Your task to perform on an android device: star an email in the gmail app Image 0: 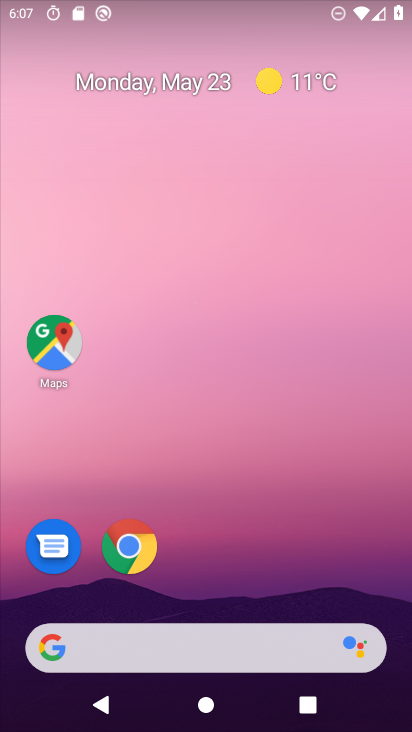
Step 0: drag from (259, 592) to (253, 157)
Your task to perform on an android device: star an email in the gmail app Image 1: 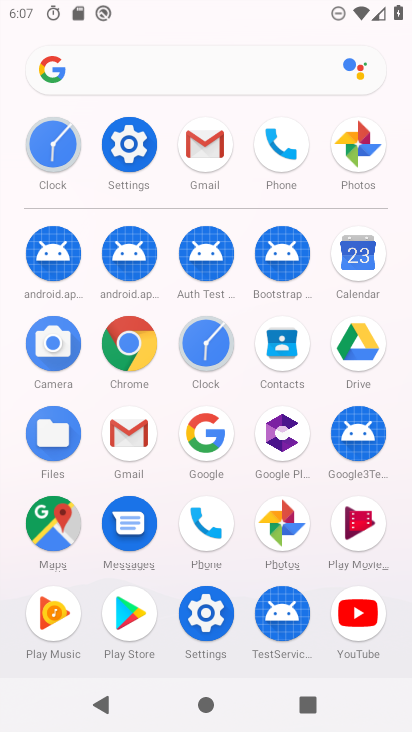
Step 1: click (116, 429)
Your task to perform on an android device: star an email in the gmail app Image 2: 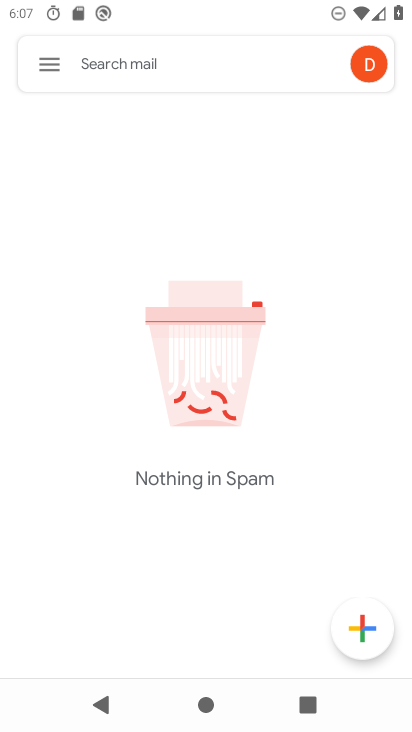
Step 2: click (50, 58)
Your task to perform on an android device: star an email in the gmail app Image 3: 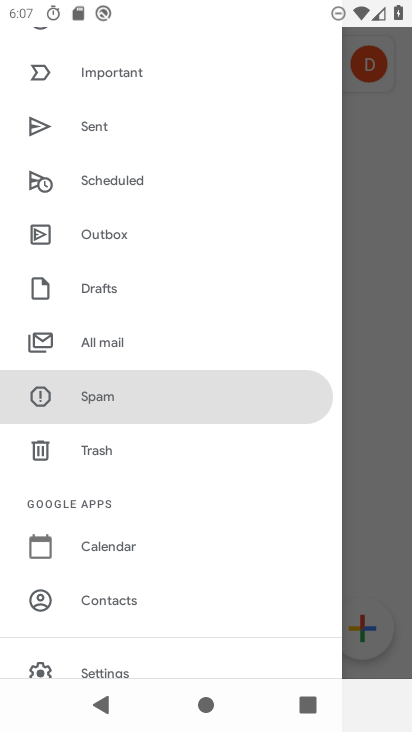
Step 3: drag from (216, 184) to (164, 435)
Your task to perform on an android device: star an email in the gmail app Image 4: 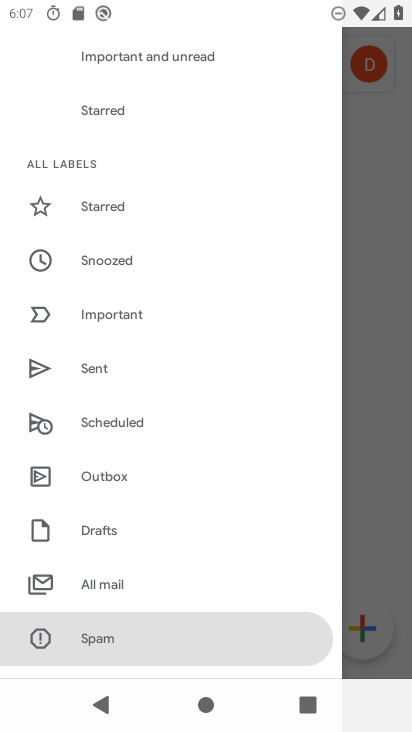
Step 4: click (117, 582)
Your task to perform on an android device: star an email in the gmail app Image 5: 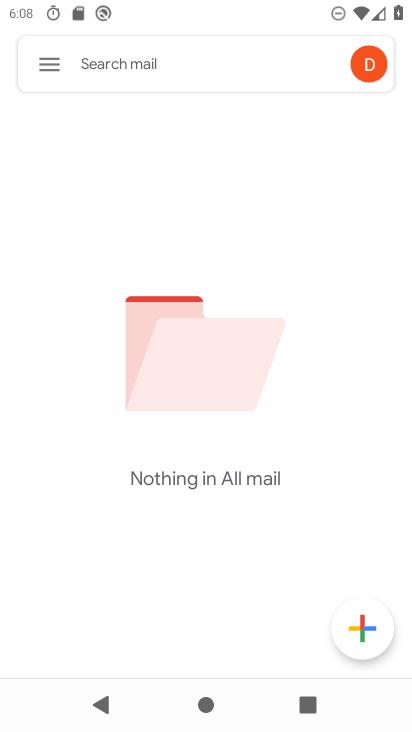
Step 5: task complete